Your task to perform on an android device: turn off notifications in google photos Image 0: 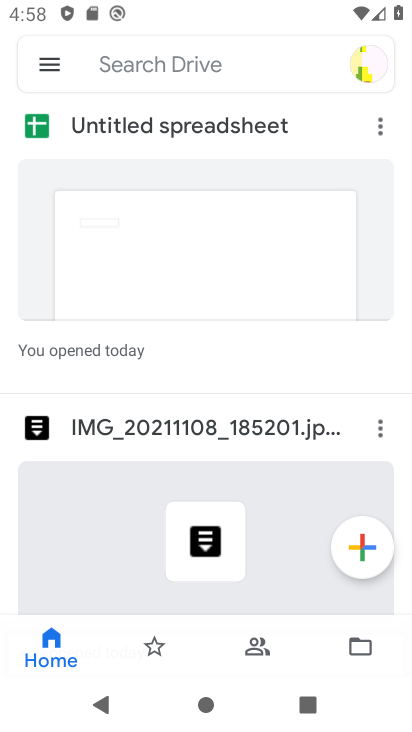
Step 0: press home button
Your task to perform on an android device: turn off notifications in google photos Image 1: 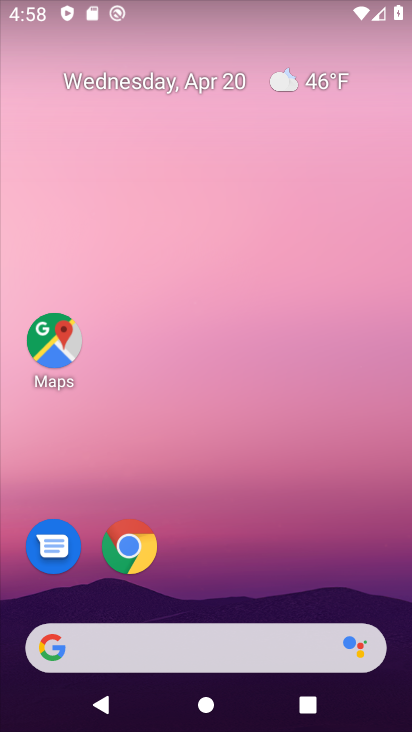
Step 1: drag from (307, 458) to (316, 0)
Your task to perform on an android device: turn off notifications in google photos Image 2: 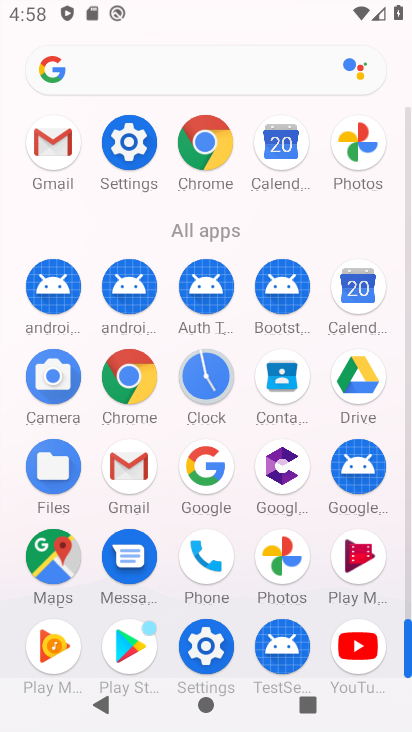
Step 2: click (358, 153)
Your task to perform on an android device: turn off notifications in google photos Image 3: 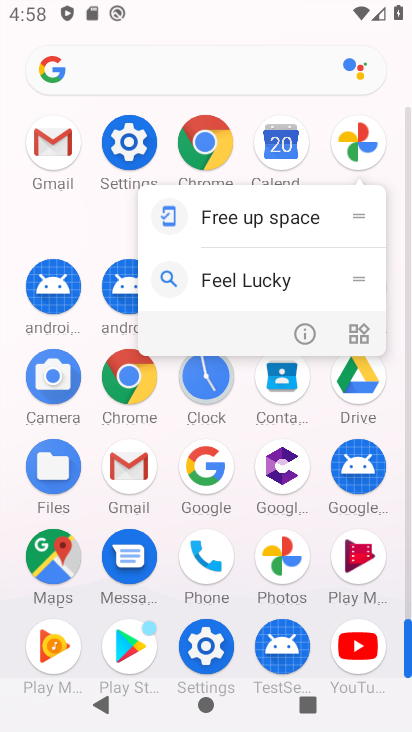
Step 3: click (349, 134)
Your task to perform on an android device: turn off notifications in google photos Image 4: 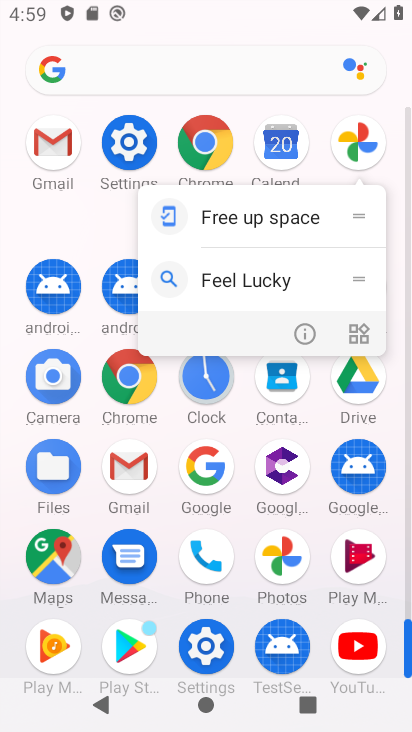
Step 4: click (358, 139)
Your task to perform on an android device: turn off notifications in google photos Image 5: 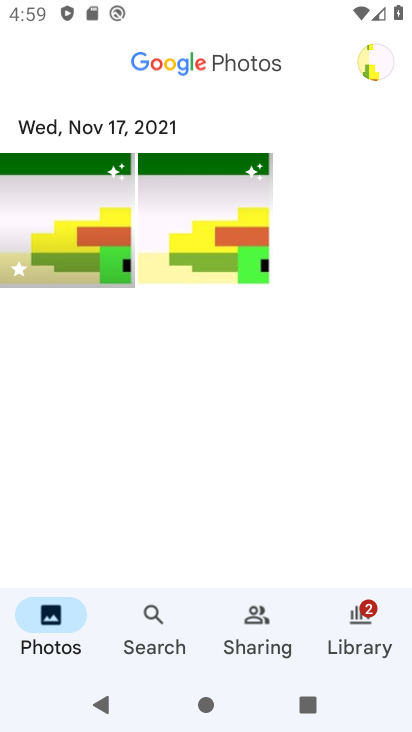
Step 5: task complete